Your task to perform on an android device: turn pop-ups on in chrome Image 0: 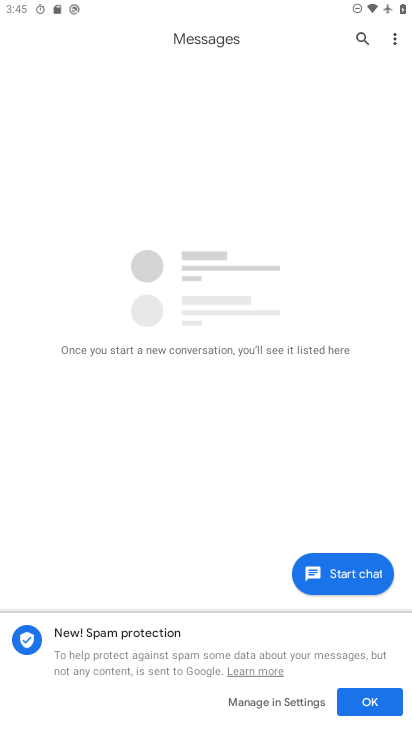
Step 0: press home button
Your task to perform on an android device: turn pop-ups on in chrome Image 1: 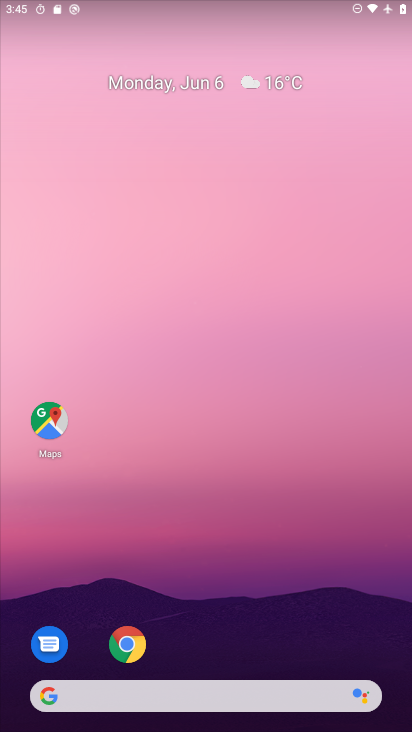
Step 1: click (124, 644)
Your task to perform on an android device: turn pop-ups on in chrome Image 2: 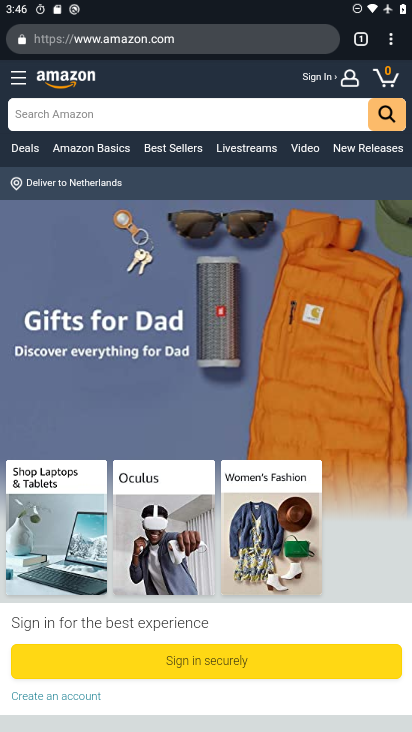
Step 2: click (392, 42)
Your task to perform on an android device: turn pop-ups on in chrome Image 3: 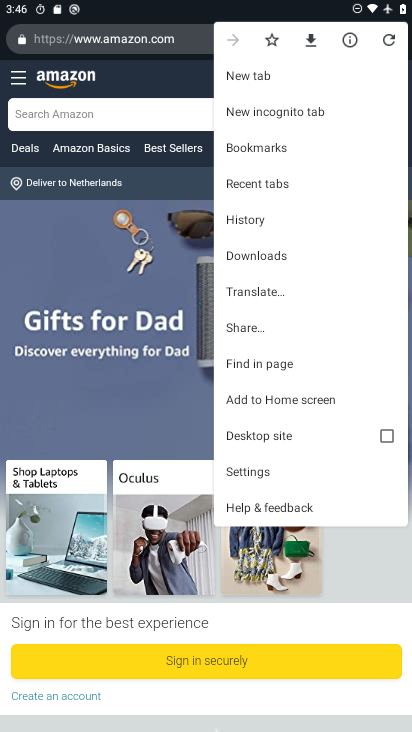
Step 3: click (242, 467)
Your task to perform on an android device: turn pop-ups on in chrome Image 4: 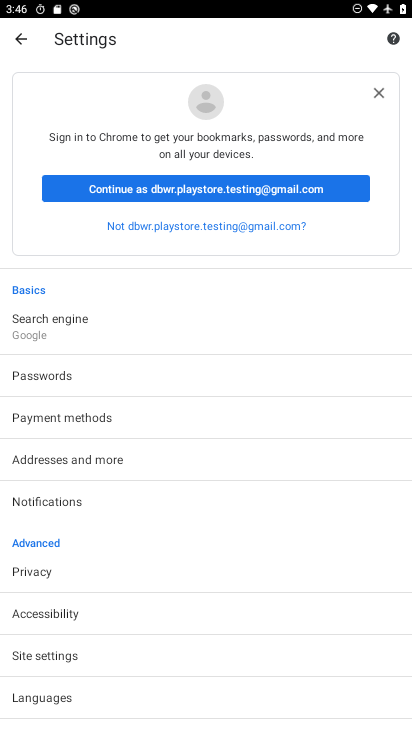
Step 4: click (68, 648)
Your task to perform on an android device: turn pop-ups on in chrome Image 5: 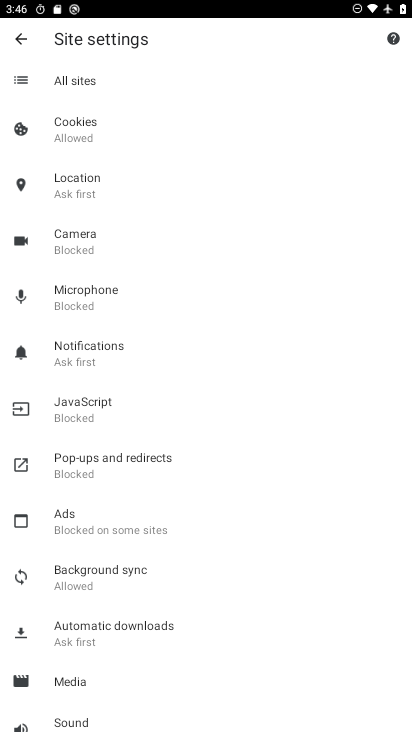
Step 5: click (149, 455)
Your task to perform on an android device: turn pop-ups on in chrome Image 6: 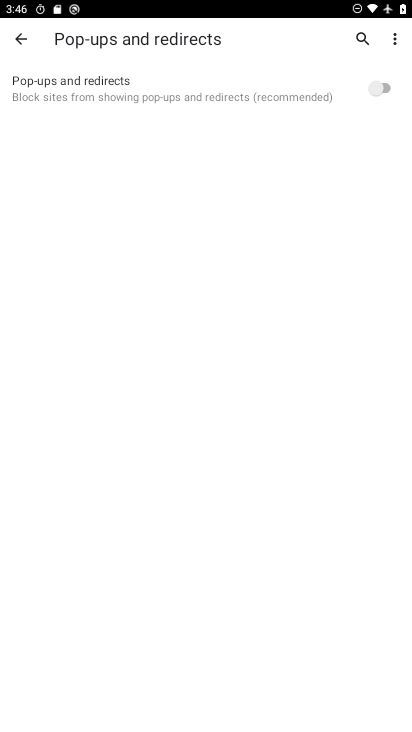
Step 6: click (374, 78)
Your task to perform on an android device: turn pop-ups on in chrome Image 7: 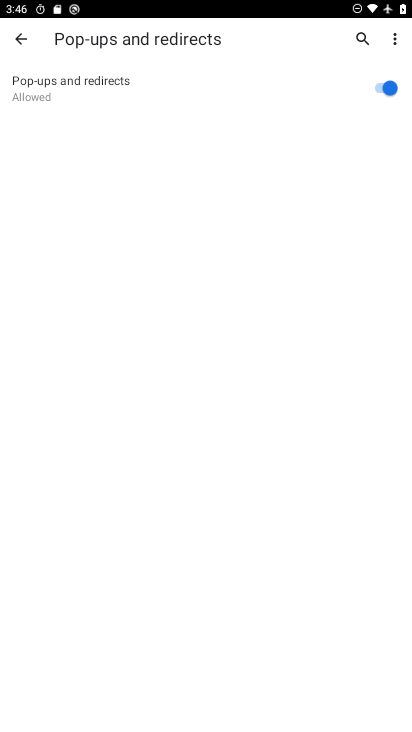
Step 7: task complete